Your task to perform on an android device: Search for "amazon basics triple a" on ebay.com, select the first entry, add it to the cart, then select checkout. Image 0: 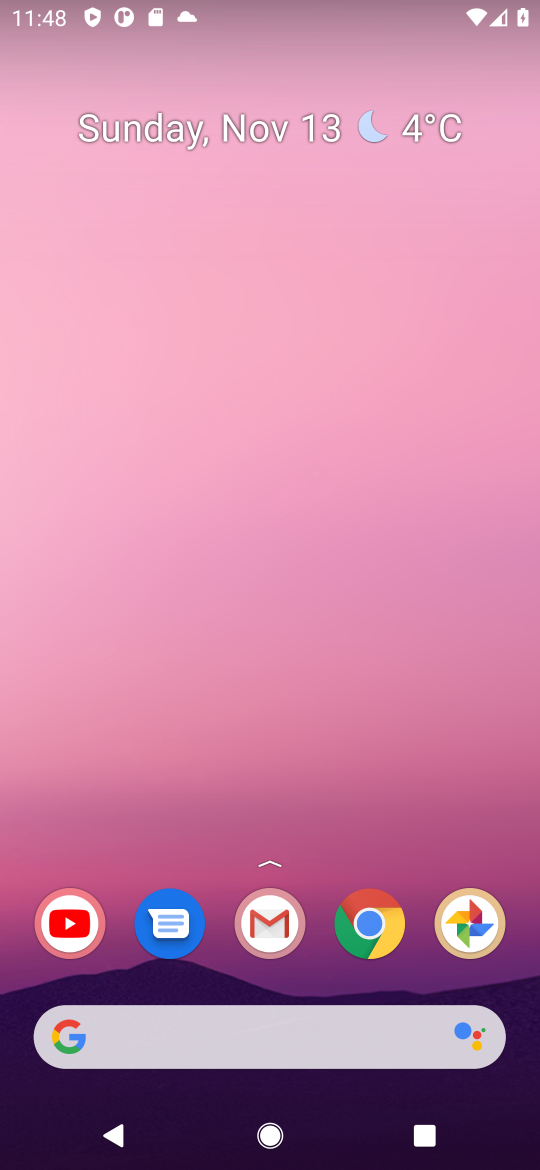
Step 0: click (385, 932)
Your task to perform on an android device: Search for "amazon basics triple a" on ebay.com, select the first entry, add it to the cart, then select checkout. Image 1: 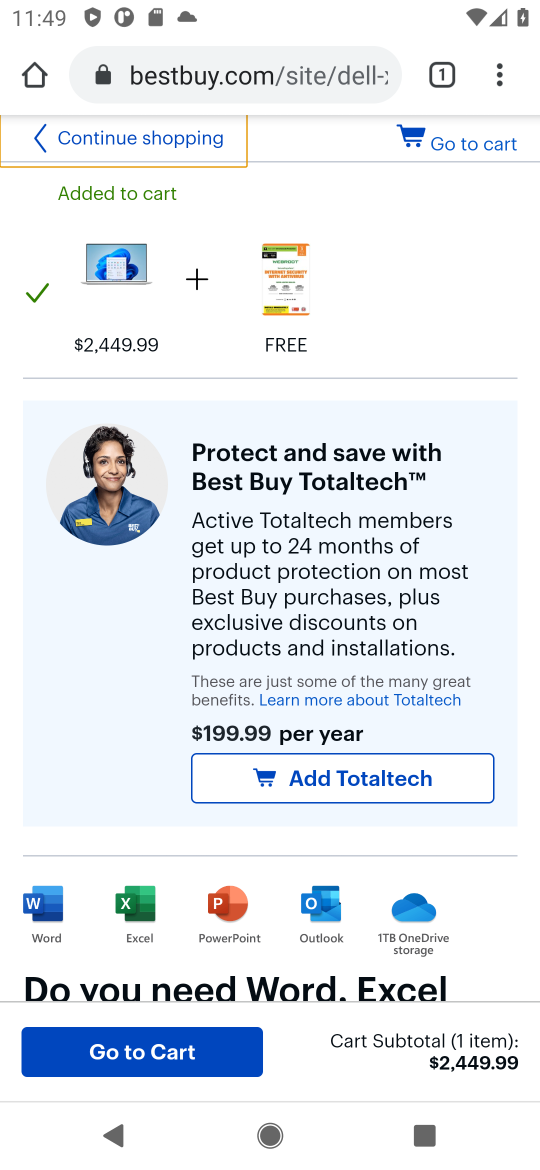
Step 1: click (345, 68)
Your task to perform on an android device: Search for "amazon basics triple a" on ebay.com, select the first entry, add it to the cart, then select checkout. Image 2: 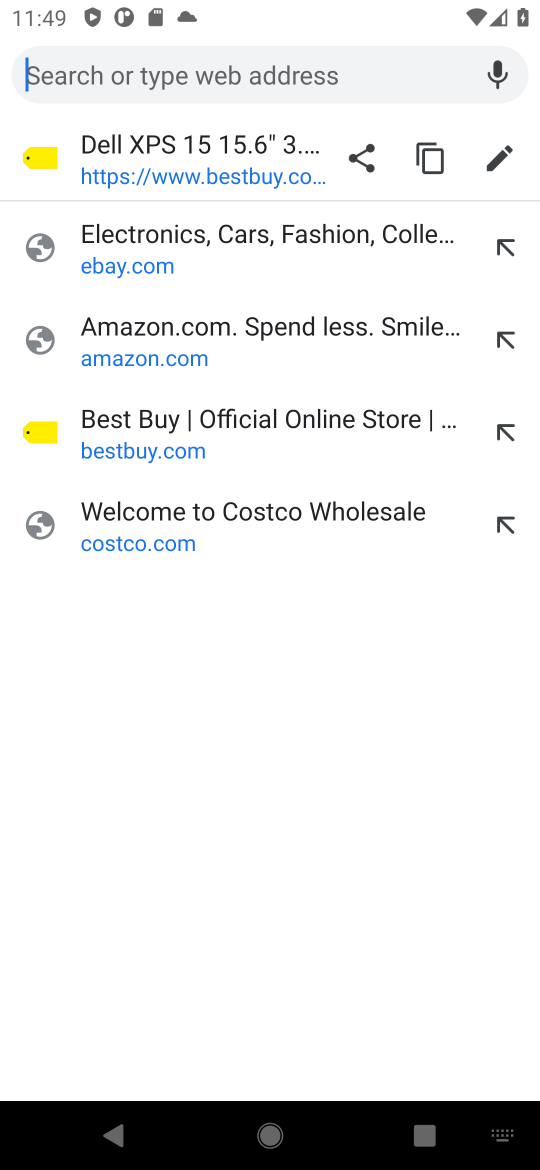
Step 2: click (206, 234)
Your task to perform on an android device: Search for "amazon basics triple a" on ebay.com, select the first entry, add it to the cart, then select checkout. Image 3: 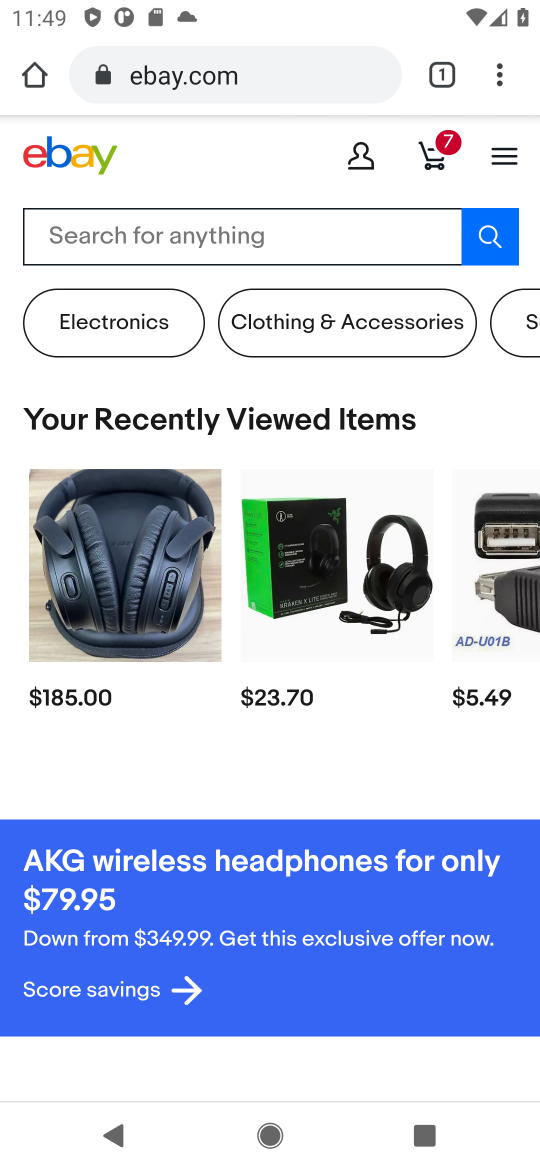
Step 3: click (274, 240)
Your task to perform on an android device: Search for "amazon basics triple a" on ebay.com, select the first entry, add it to the cart, then select checkout. Image 4: 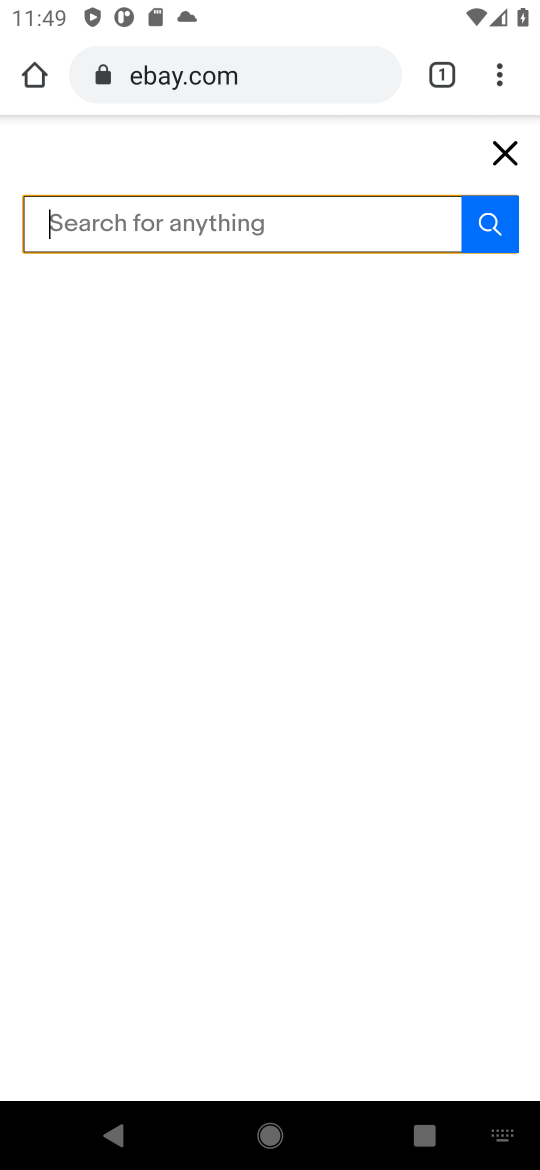
Step 4: type "amazon basics triple a"
Your task to perform on an android device: Search for "amazon basics triple a" on ebay.com, select the first entry, add it to the cart, then select checkout. Image 5: 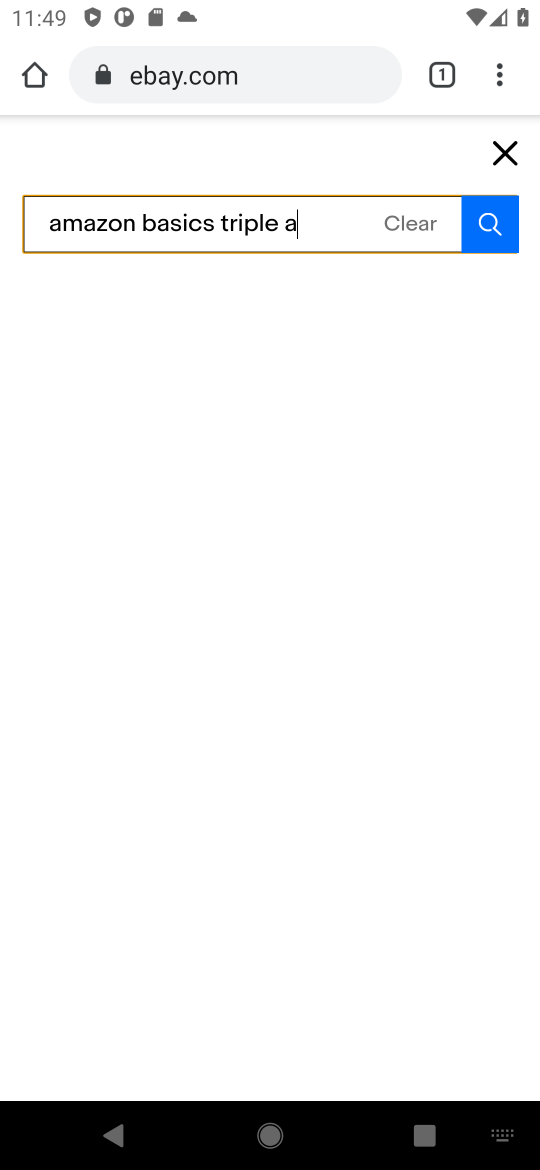
Step 5: press enter
Your task to perform on an android device: Search for "amazon basics triple a" on ebay.com, select the first entry, add it to the cart, then select checkout. Image 6: 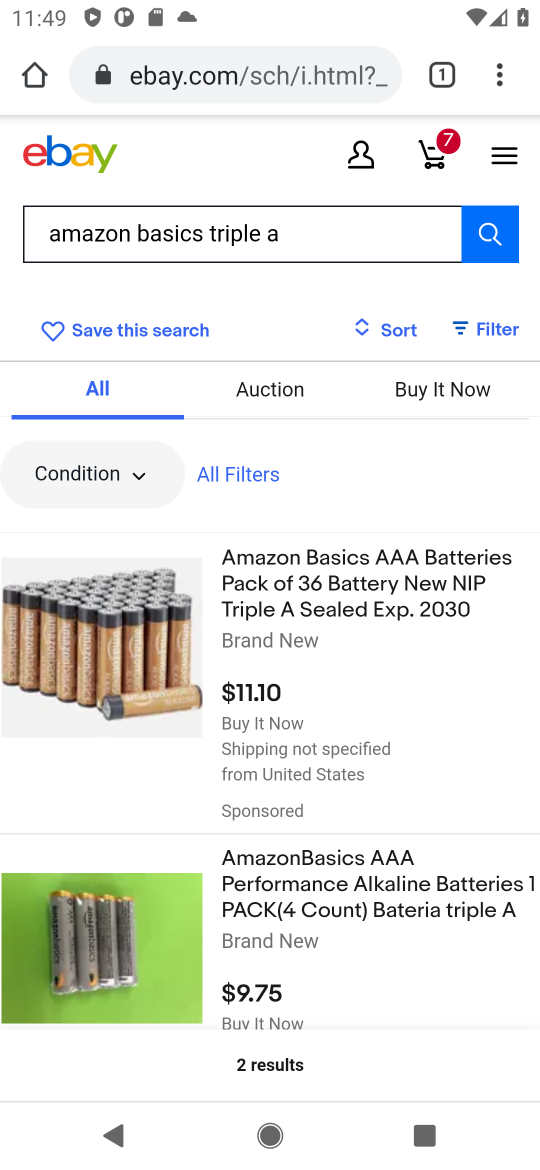
Step 6: click (103, 914)
Your task to perform on an android device: Search for "amazon basics triple a" on ebay.com, select the first entry, add it to the cart, then select checkout. Image 7: 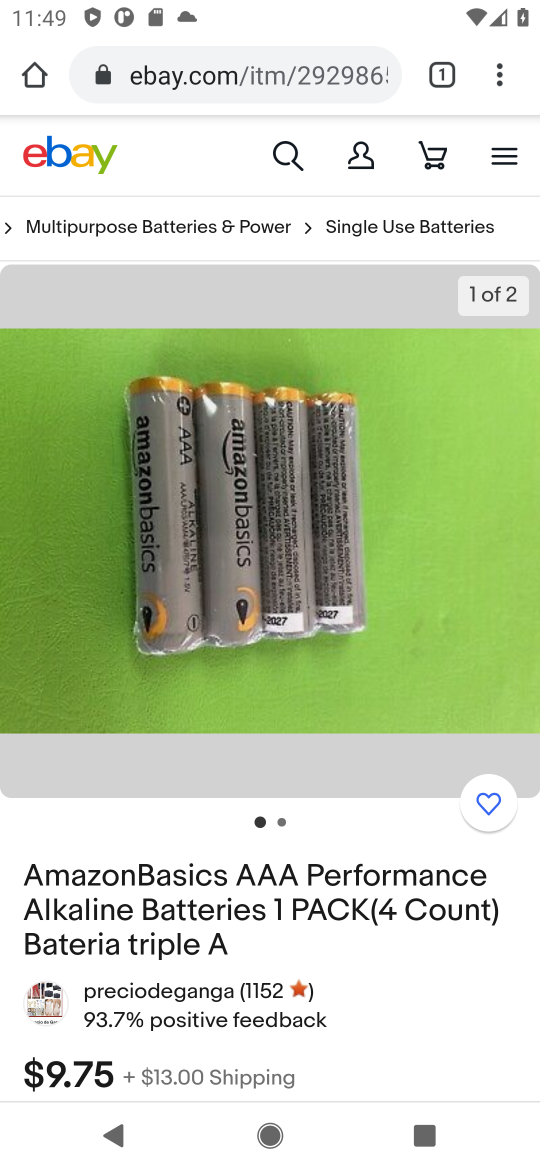
Step 7: drag from (414, 970) to (382, 547)
Your task to perform on an android device: Search for "amazon basics triple a" on ebay.com, select the first entry, add it to the cart, then select checkout. Image 8: 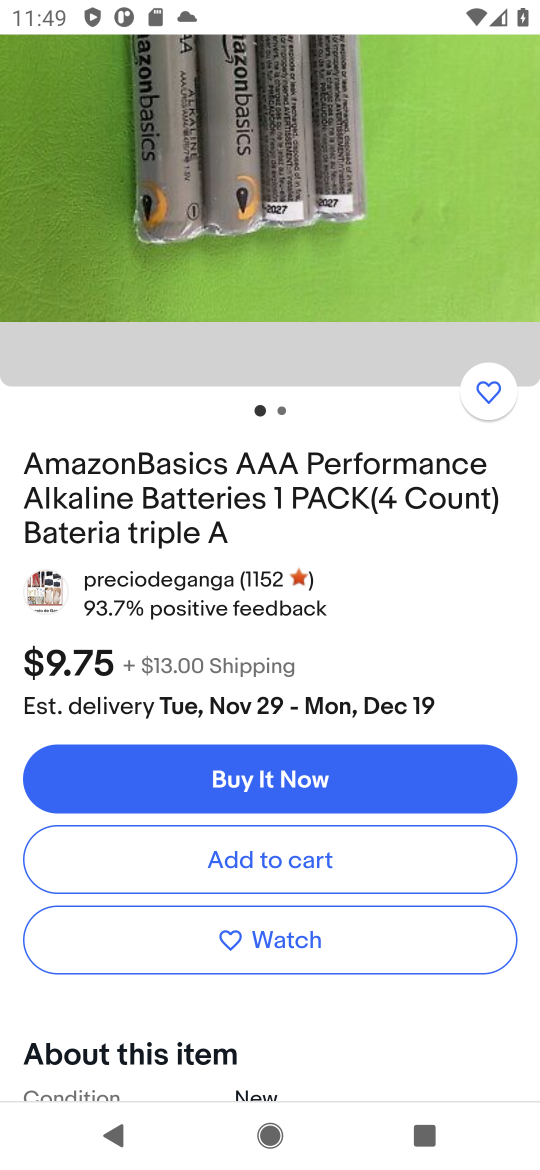
Step 8: click (330, 861)
Your task to perform on an android device: Search for "amazon basics triple a" on ebay.com, select the first entry, add it to the cart, then select checkout. Image 9: 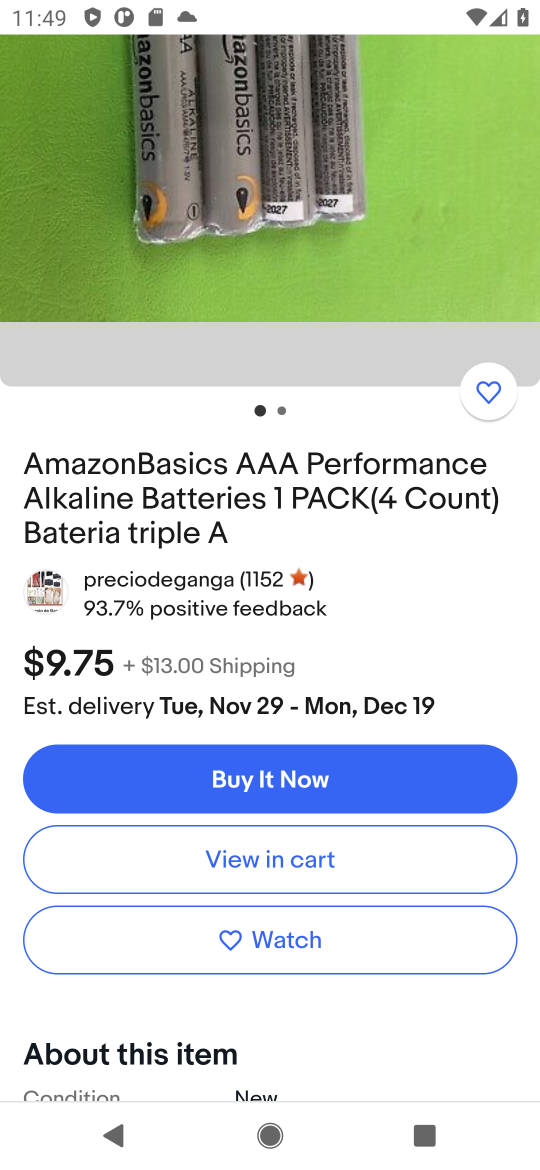
Step 9: click (269, 860)
Your task to perform on an android device: Search for "amazon basics triple a" on ebay.com, select the first entry, add it to the cart, then select checkout. Image 10: 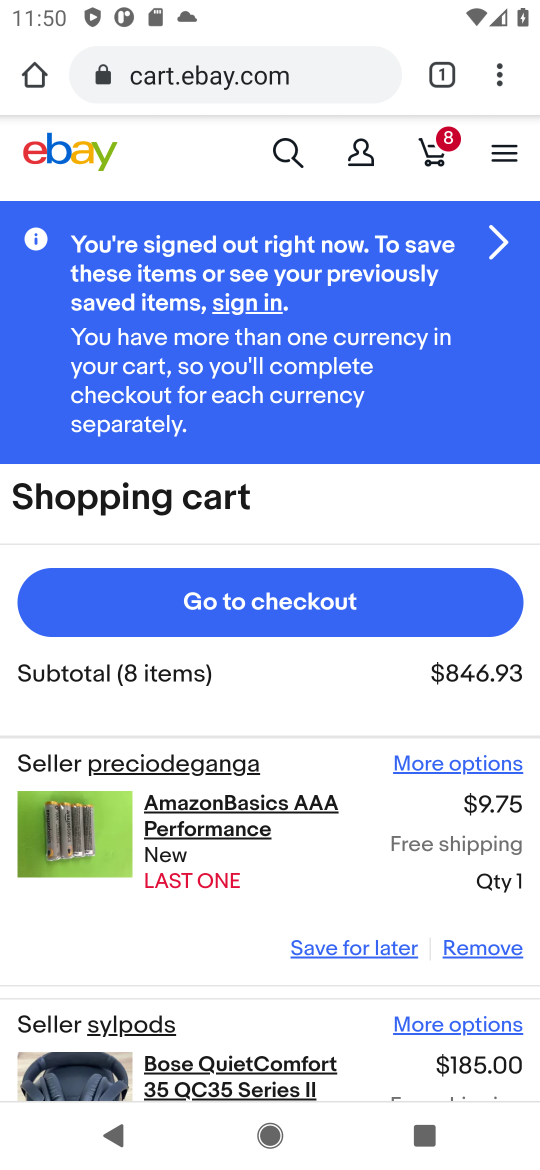
Step 10: click (348, 610)
Your task to perform on an android device: Search for "amazon basics triple a" on ebay.com, select the first entry, add it to the cart, then select checkout. Image 11: 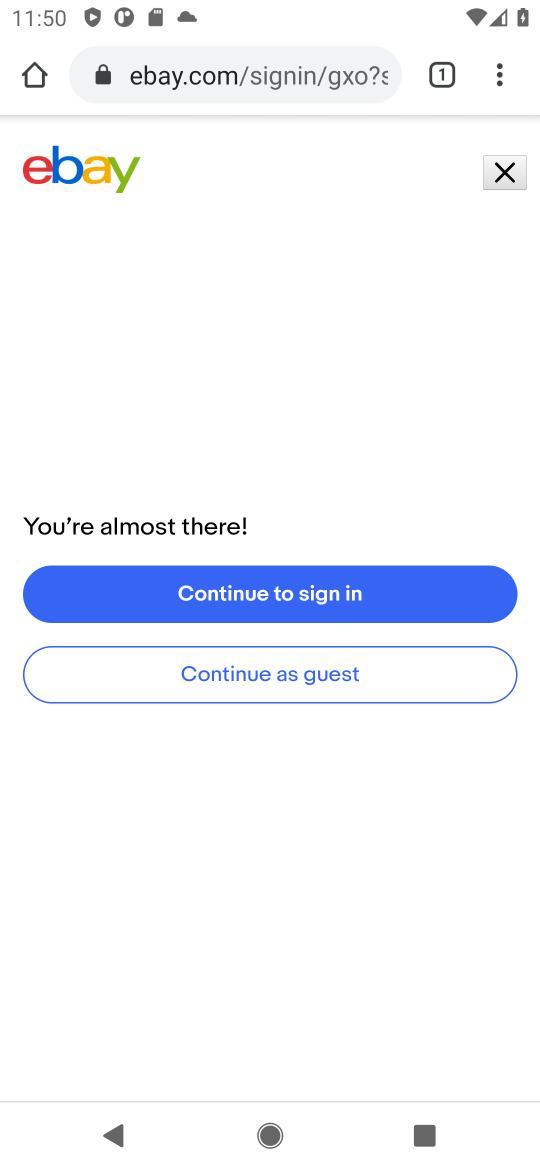
Step 11: task complete